Your task to perform on an android device: check battery use Image 0: 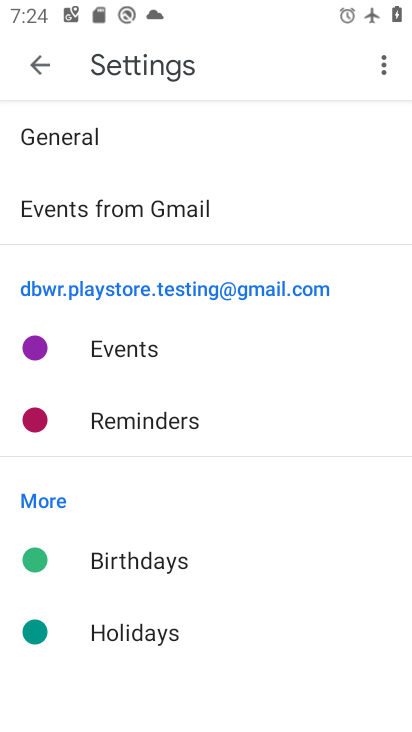
Step 0: press home button
Your task to perform on an android device: check battery use Image 1: 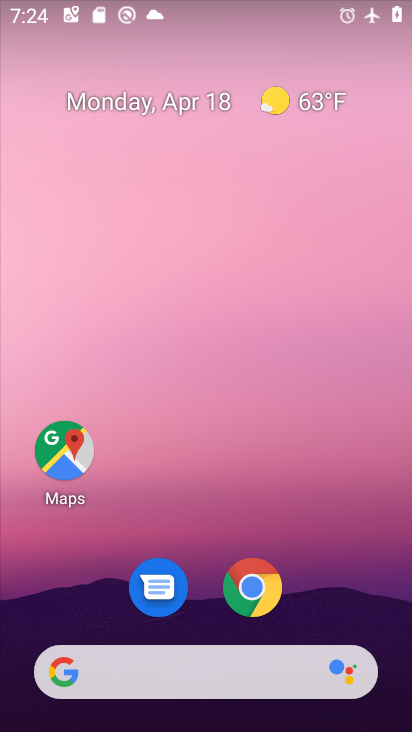
Step 1: drag from (338, 584) to (247, 75)
Your task to perform on an android device: check battery use Image 2: 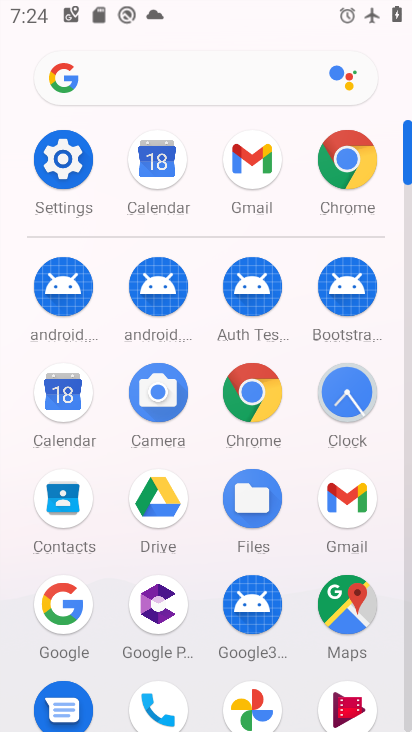
Step 2: click (73, 179)
Your task to perform on an android device: check battery use Image 3: 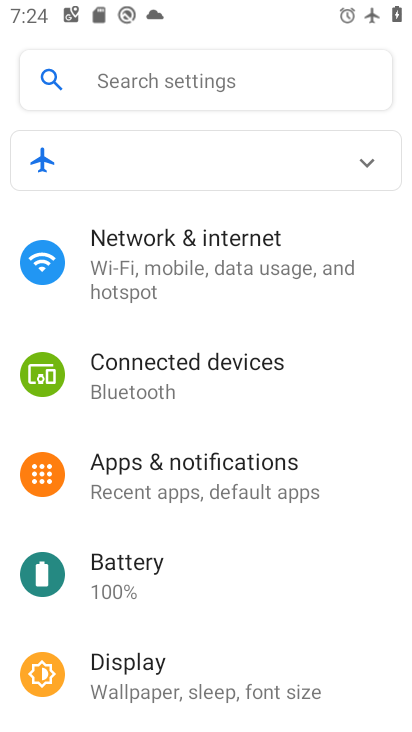
Step 3: click (227, 551)
Your task to perform on an android device: check battery use Image 4: 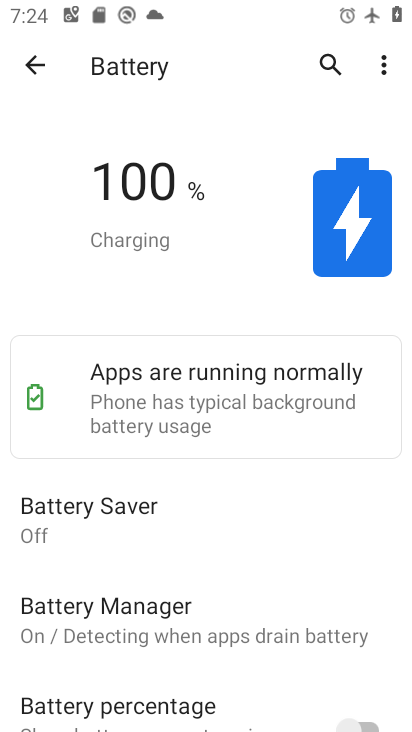
Step 4: task complete